Your task to perform on an android device: Google the capital of Bolivia Image 0: 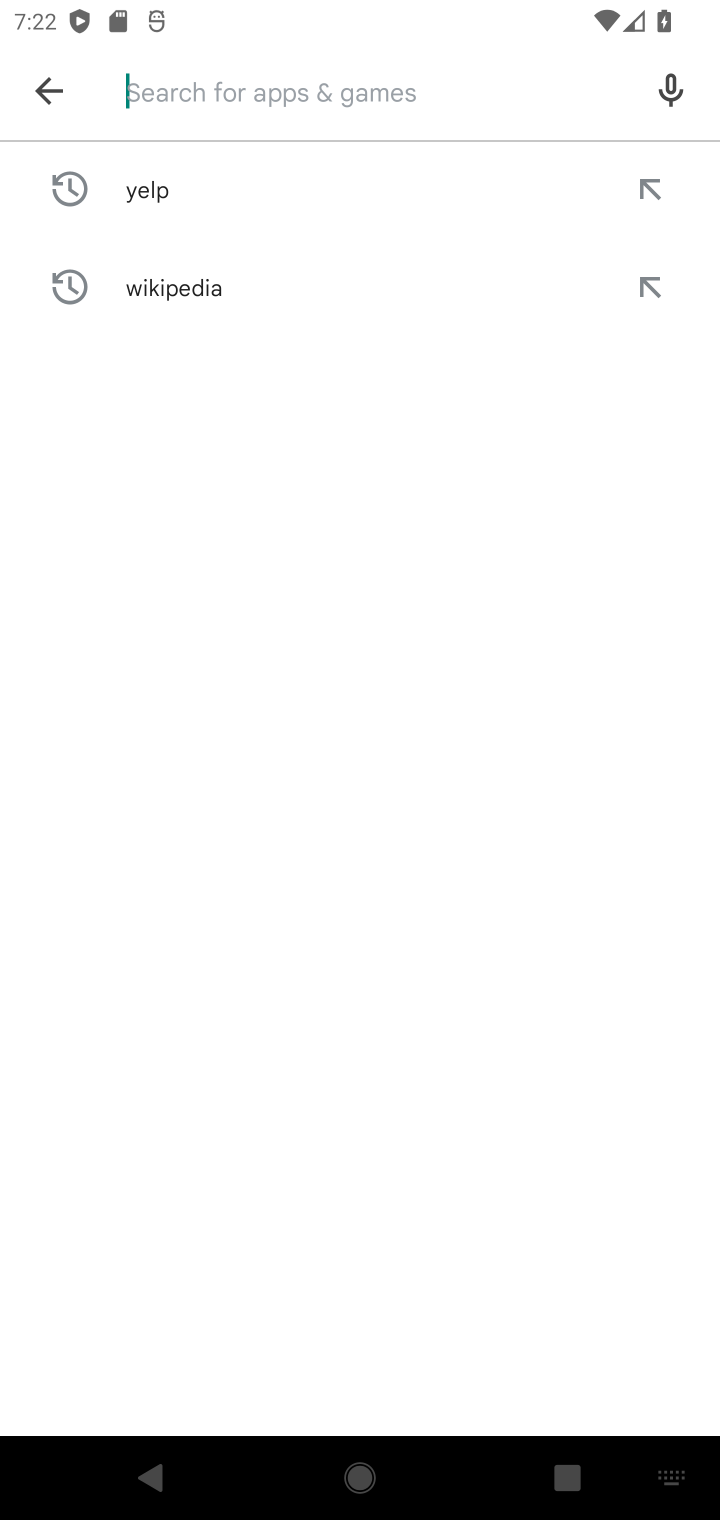
Step 0: press home button
Your task to perform on an android device: Google the capital of Bolivia Image 1: 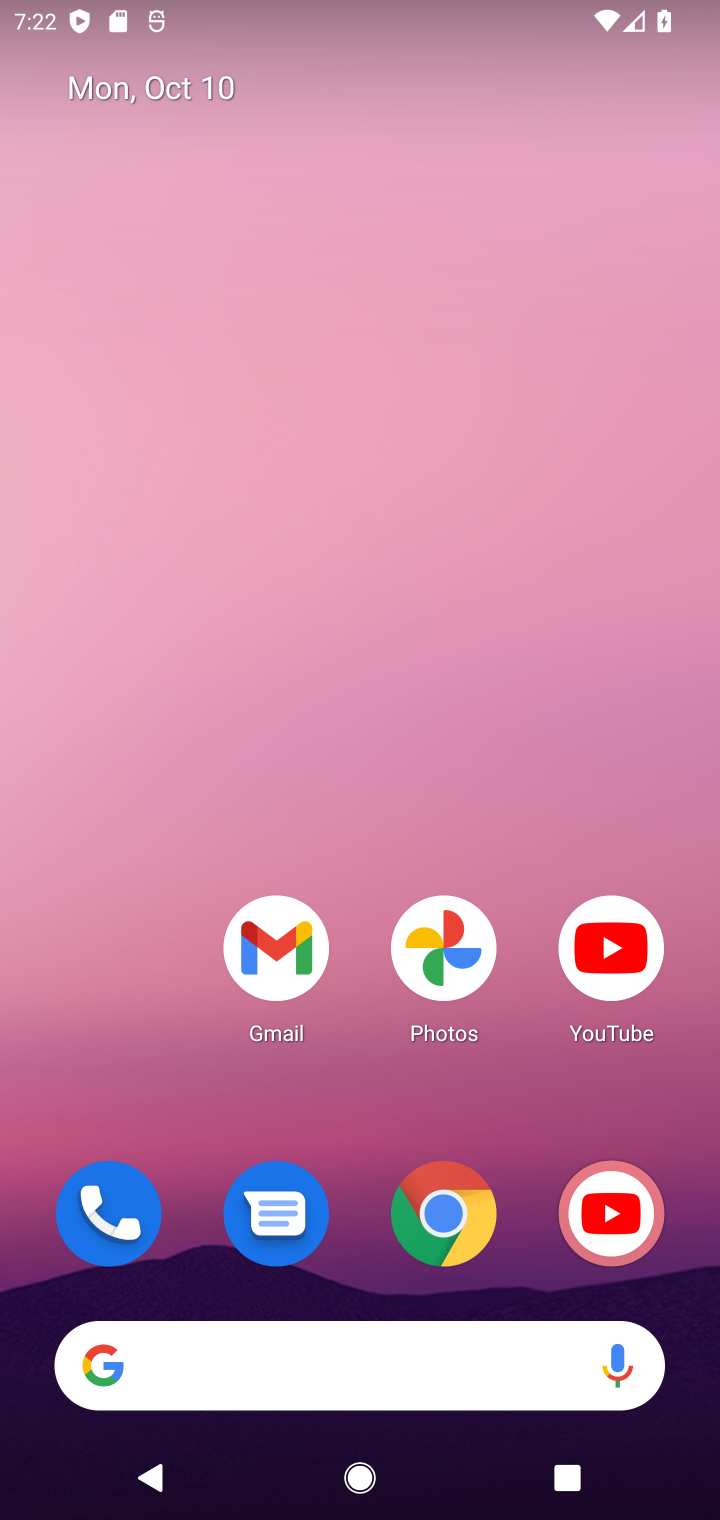
Step 1: drag from (78, 985) to (271, 58)
Your task to perform on an android device: Google the capital of Bolivia Image 2: 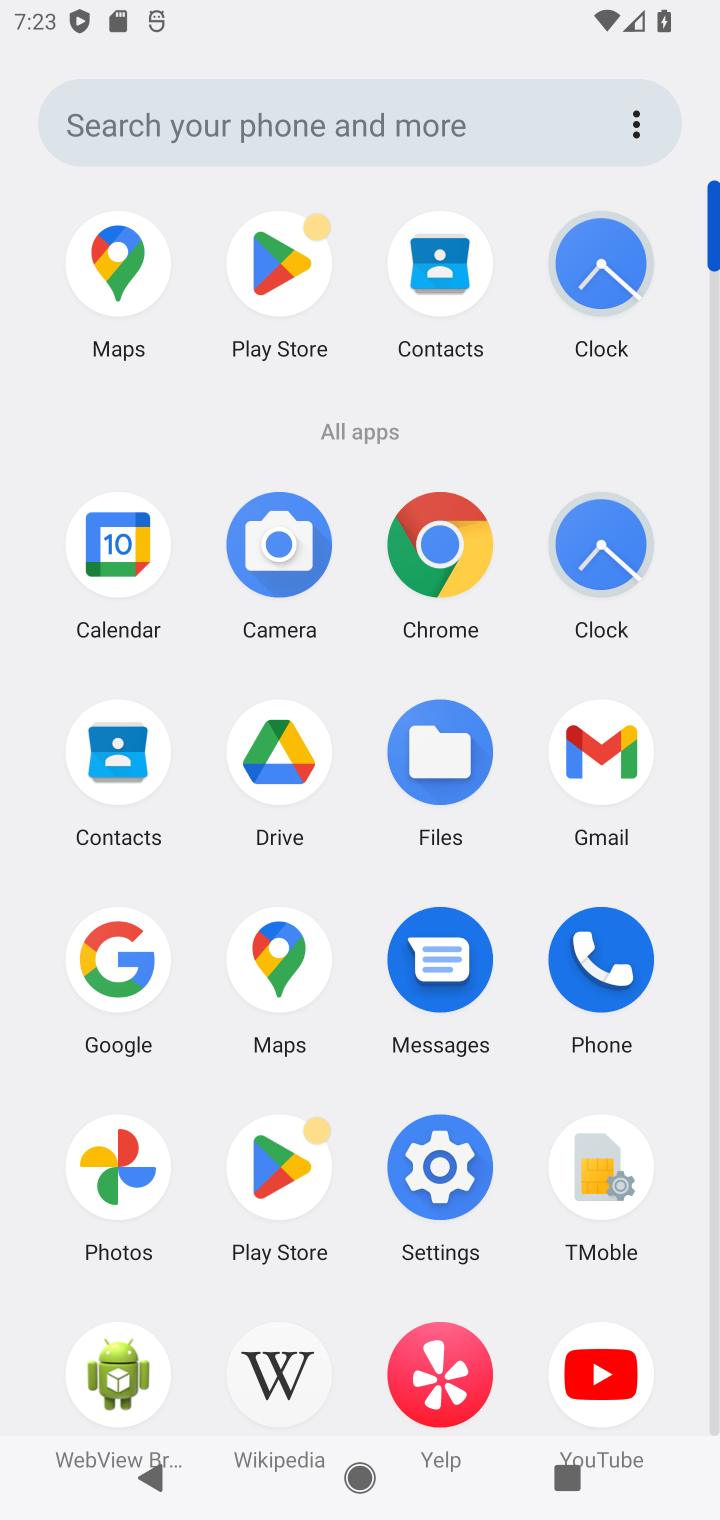
Step 2: click (108, 985)
Your task to perform on an android device: Google the capital of Bolivia Image 3: 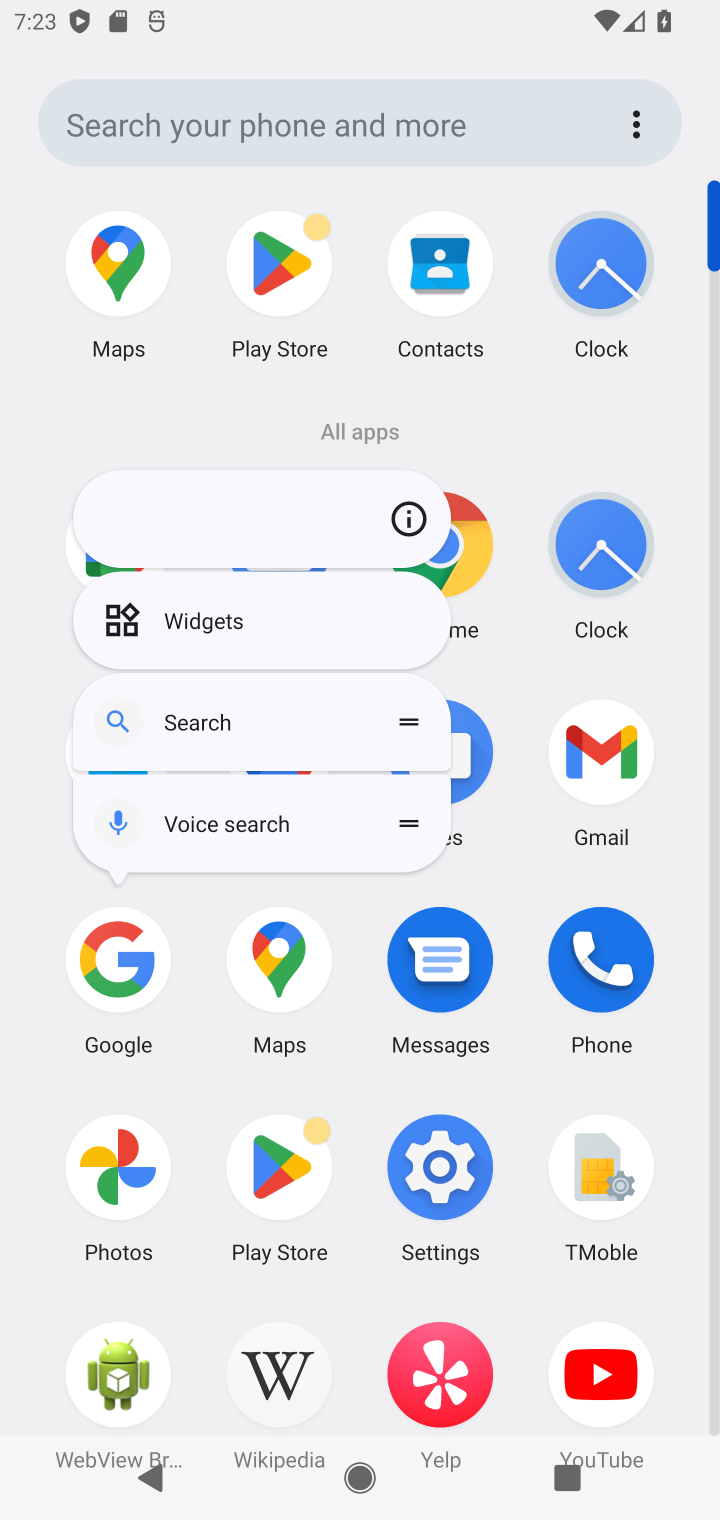
Step 3: click (135, 960)
Your task to perform on an android device: Google the capital of Bolivia Image 4: 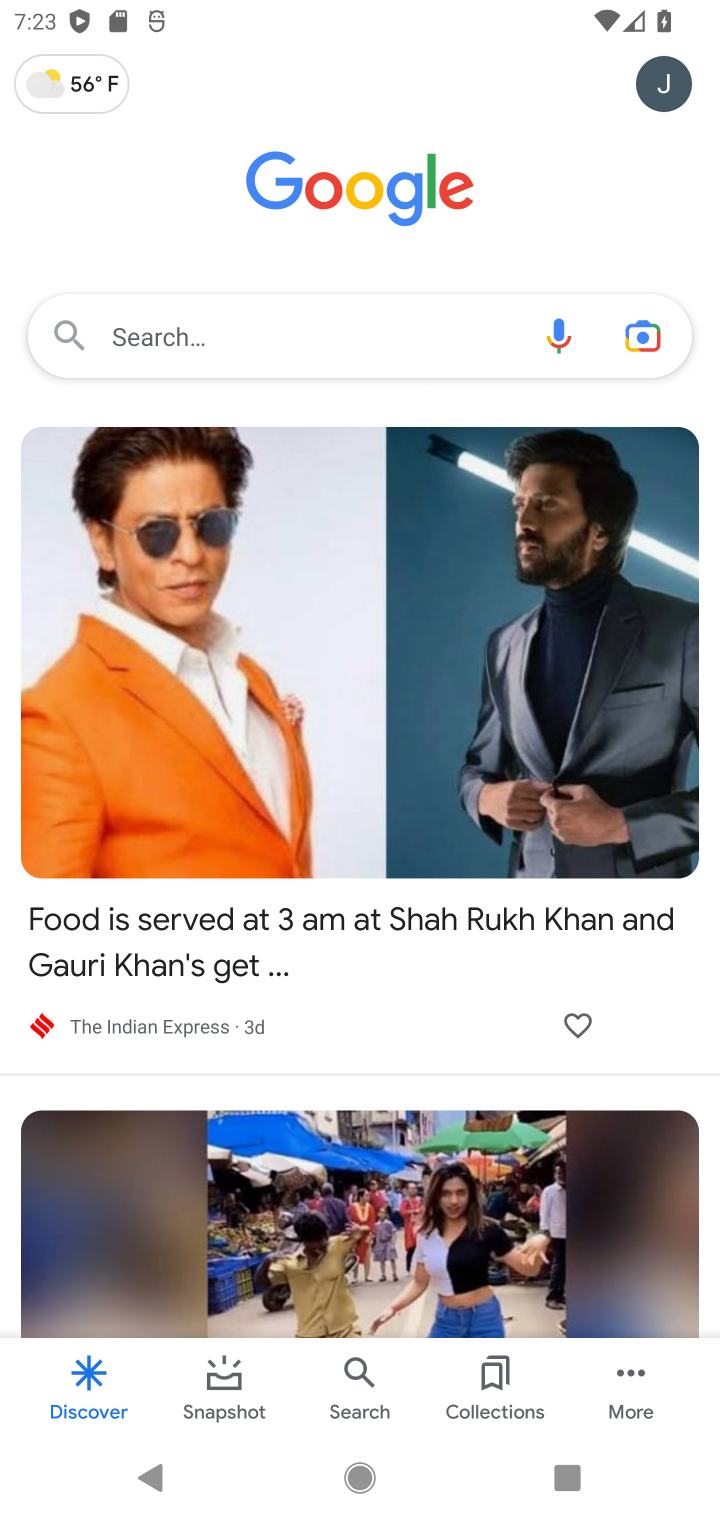
Step 4: click (217, 343)
Your task to perform on an android device: Google the capital of Bolivia Image 5: 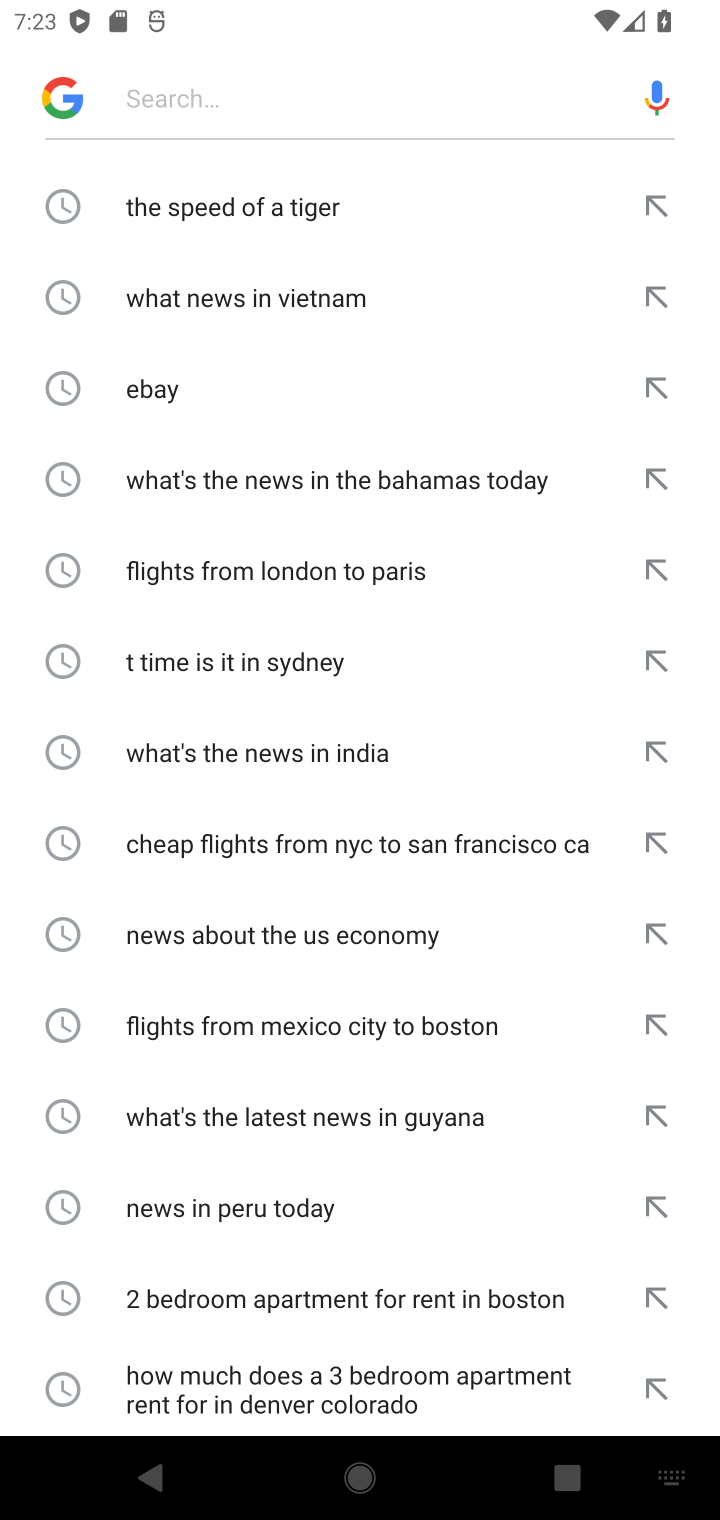
Step 5: click (192, 102)
Your task to perform on an android device: Google the capital of Bolivia Image 6: 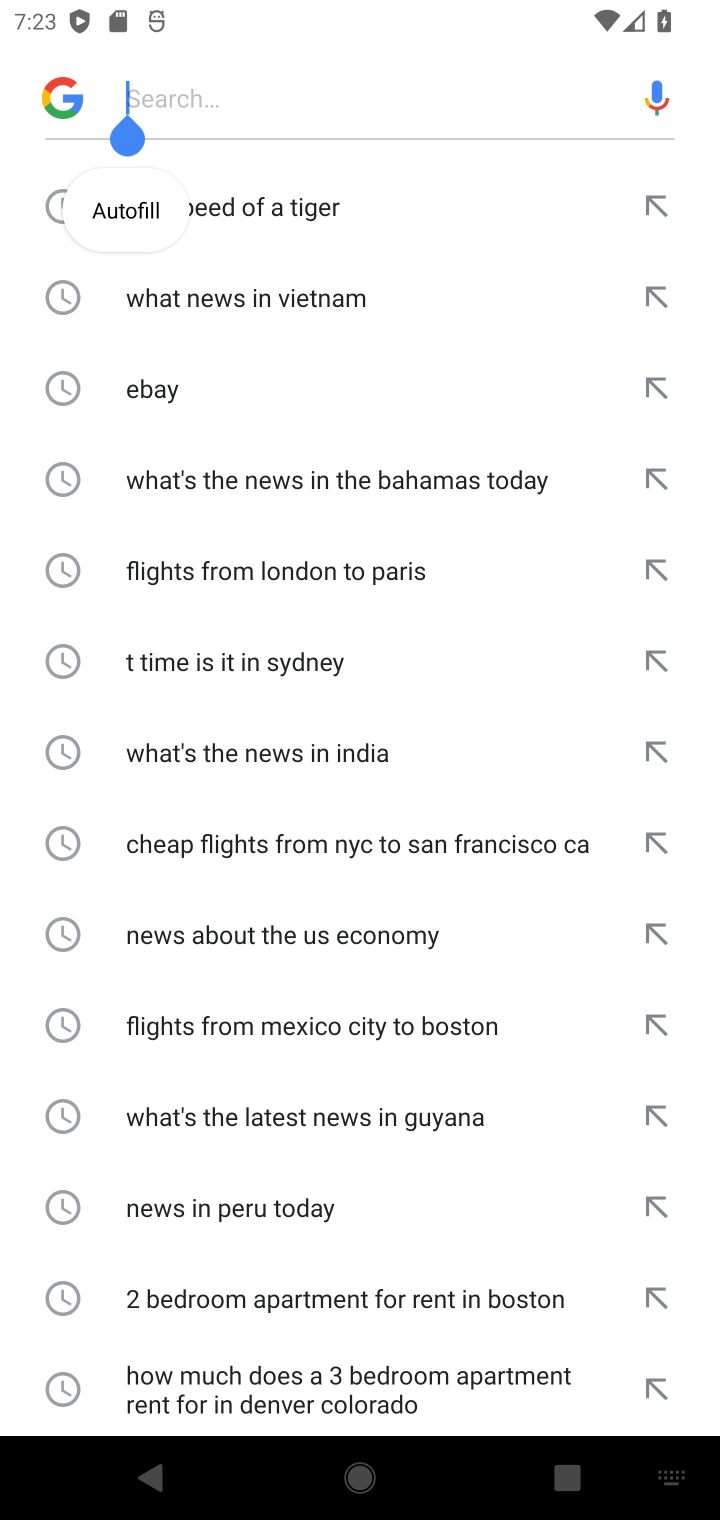
Step 6: type "capital of Bolivia"
Your task to perform on an android device: Google the capital of Bolivia Image 7: 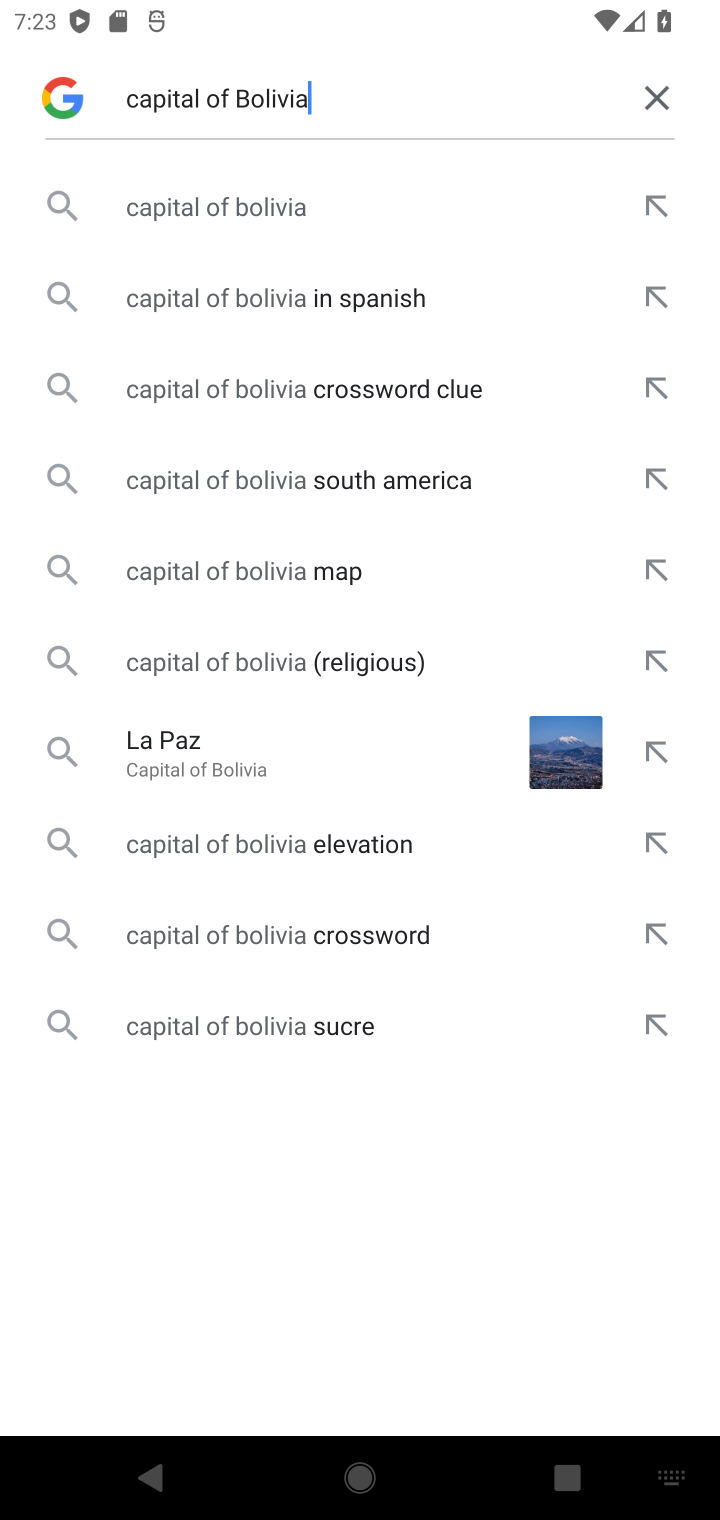
Step 7: click (198, 193)
Your task to perform on an android device: Google the capital of Bolivia Image 8: 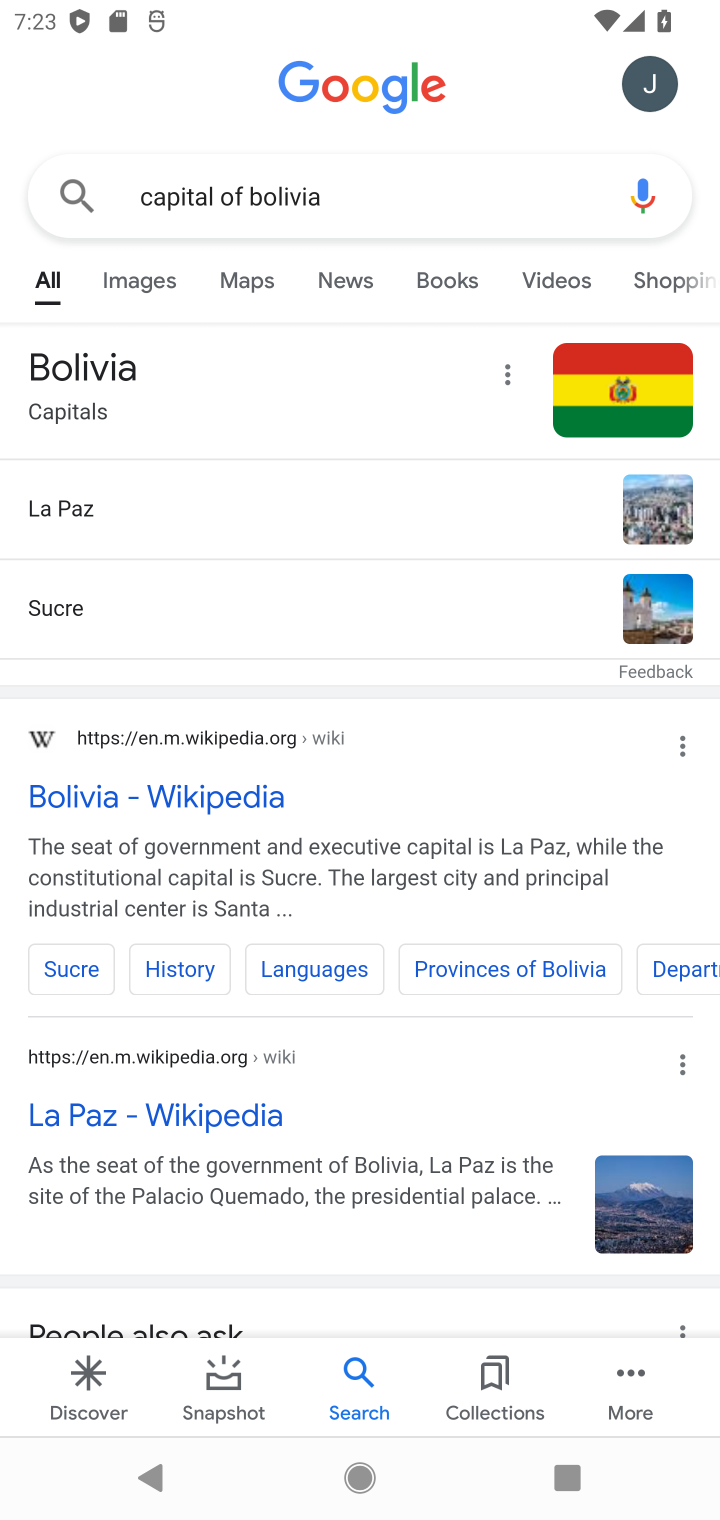
Step 8: task complete